Your task to perform on an android device: Open my contact list Image 0: 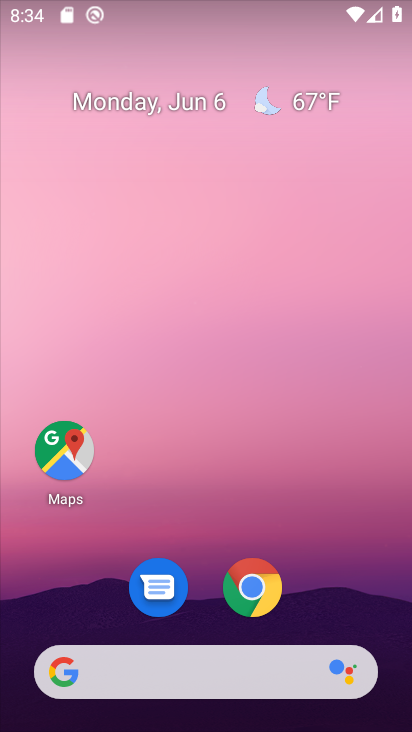
Step 0: drag from (214, 627) to (272, 206)
Your task to perform on an android device: Open my contact list Image 1: 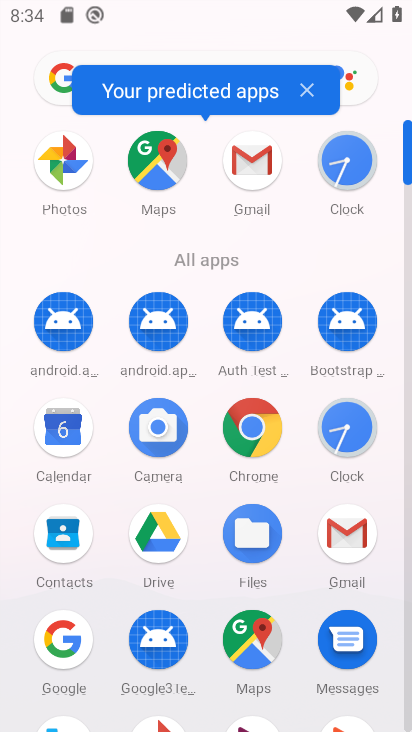
Step 1: click (66, 552)
Your task to perform on an android device: Open my contact list Image 2: 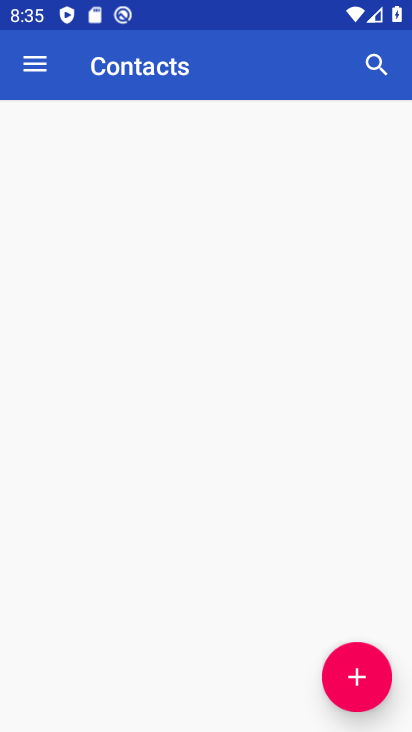
Step 2: drag from (272, 547) to (302, 201)
Your task to perform on an android device: Open my contact list Image 3: 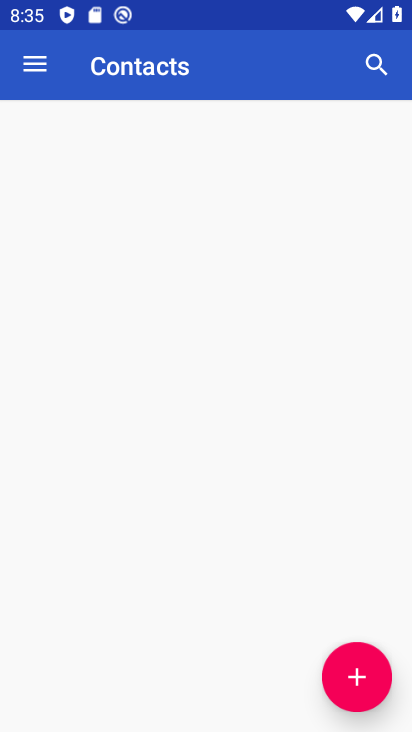
Step 3: drag from (301, 224) to (255, 472)
Your task to perform on an android device: Open my contact list Image 4: 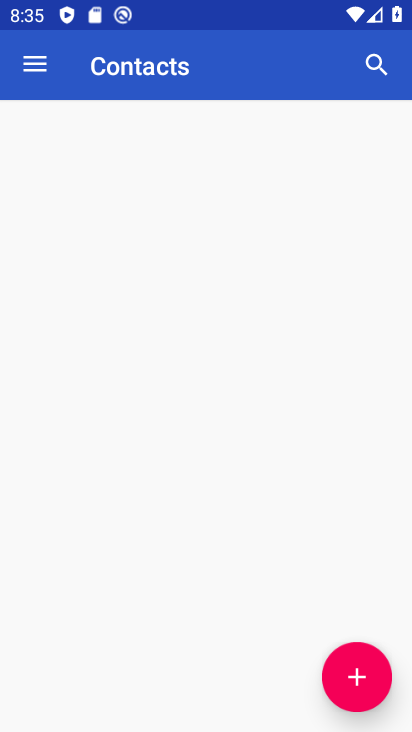
Step 4: click (254, 474)
Your task to perform on an android device: Open my contact list Image 5: 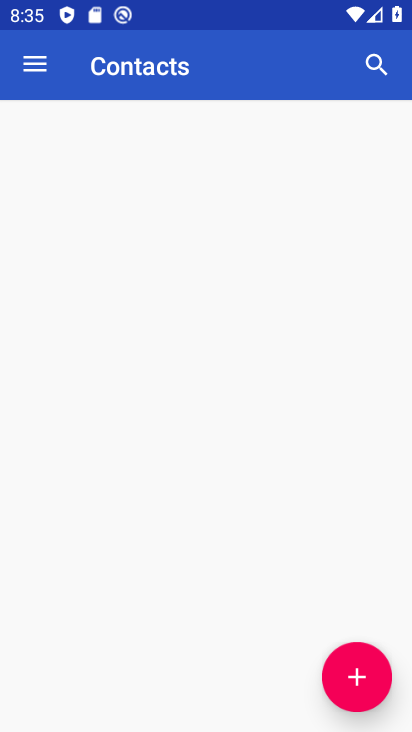
Step 5: task complete